Your task to perform on an android device: open a bookmark in the chrome app Image 0: 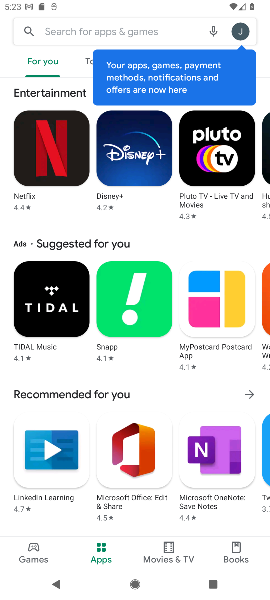
Step 0: press home button
Your task to perform on an android device: open a bookmark in the chrome app Image 1: 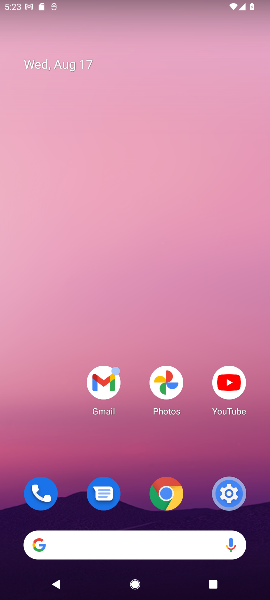
Step 1: click (165, 499)
Your task to perform on an android device: open a bookmark in the chrome app Image 2: 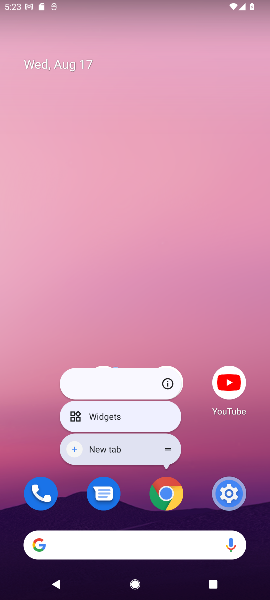
Step 2: click (165, 499)
Your task to perform on an android device: open a bookmark in the chrome app Image 3: 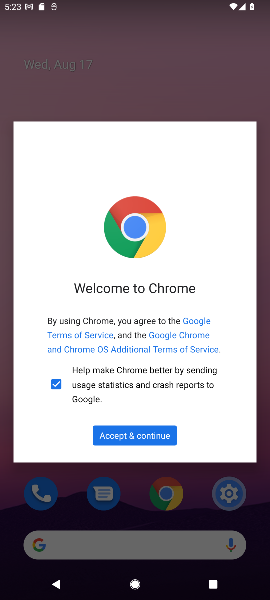
Step 3: click (136, 438)
Your task to perform on an android device: open a bookmark in the chrome app Image 4: 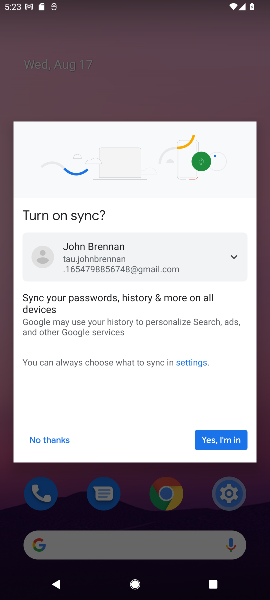
Step 4: click (217, 444)
Your task to perform on an android device: open a bookmark in the chrome app Image 5: 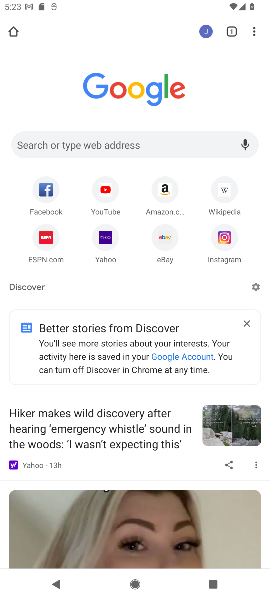
Step 5: drag from (254, 33) to (181, 168)
Your task to perform on an android device: open a bookmark in the chrome app Image 6: 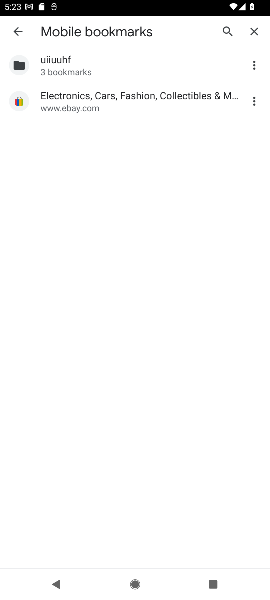
Step 6: click (87, 99)
Your task to perform on an android device: open a bookmark in the chrome app Image 7: 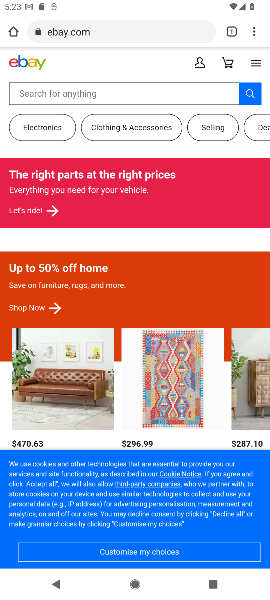
Step 7: task complete